Your task to perform on an android device: Open Amazon Image 0: 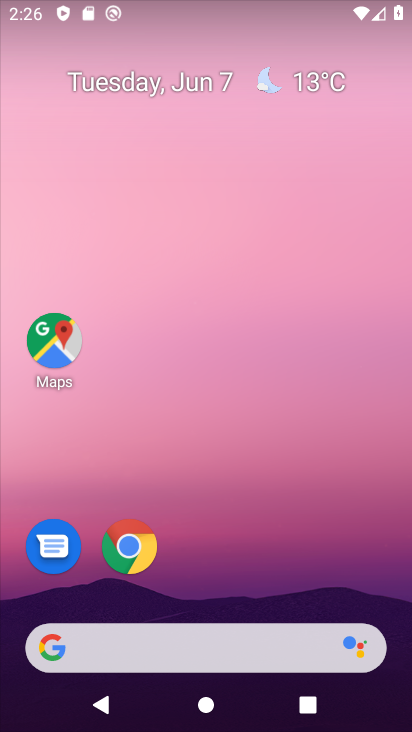
Step 0: click (130, 548)
Your task to perform on an android device: Open Amazon Image 1: 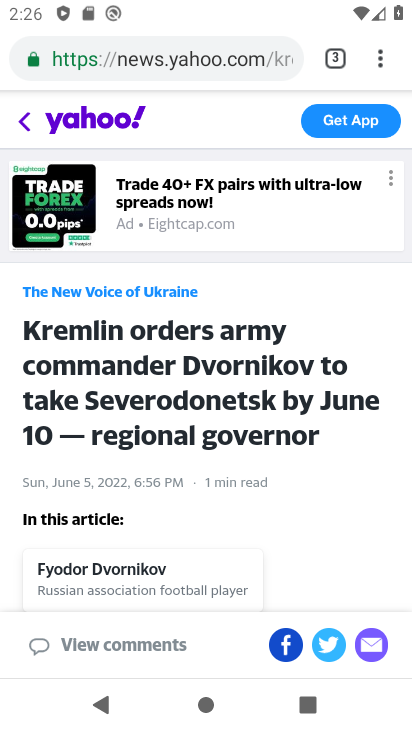
Step 1: click (130, 548)
Your task to perform on an android device: Open Amazon Image 2: 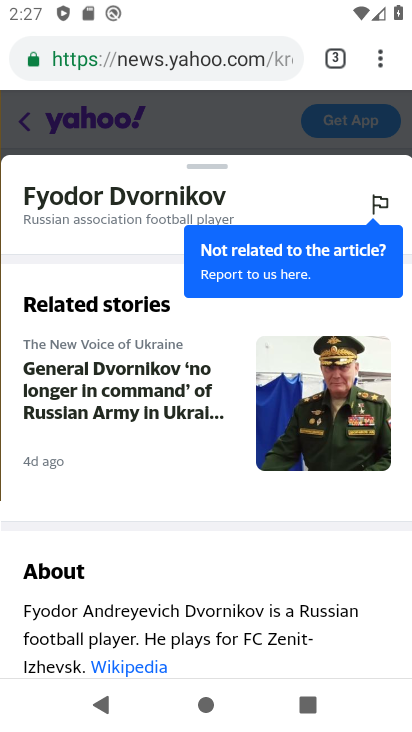
Step 2: click (337, 52)
Your task to perform on an android device: Open Amazon Image 3: 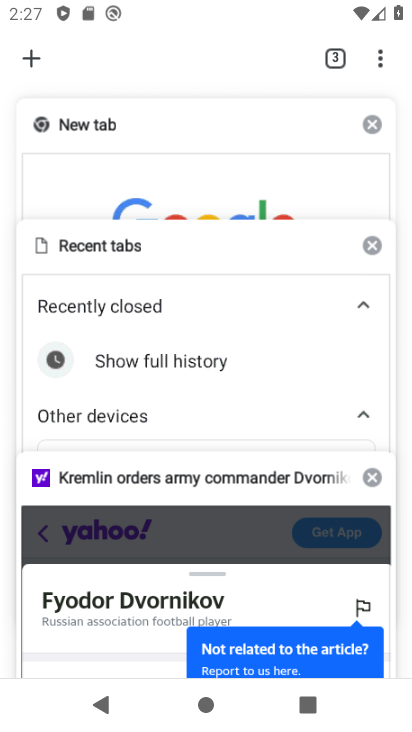
Step 3: click (32, 58)
Your task to perform on an android device: Open Amazon Image 4: 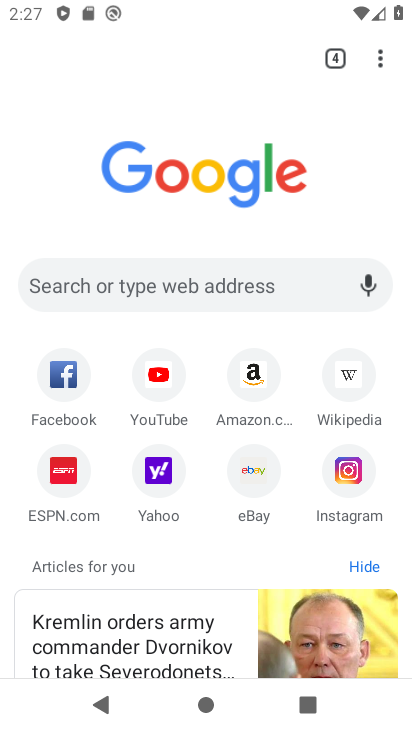
Step 4: click (262, 368)
Your task to perform on an android device: Open Amazon Image 5: 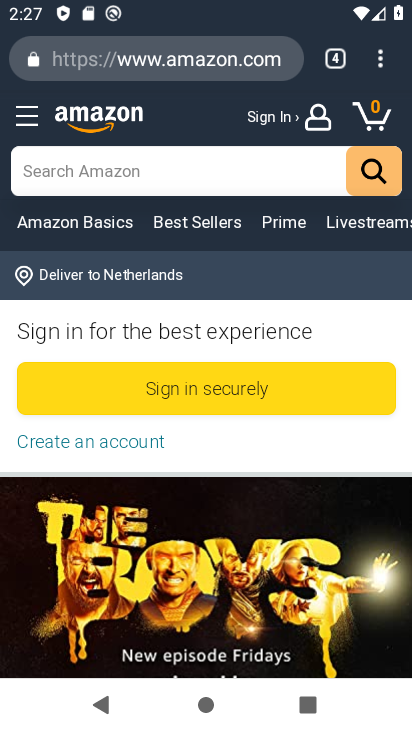
Step 5: task complete